Your task to perform on an android device: check the backup settings in the google photos Image 0: 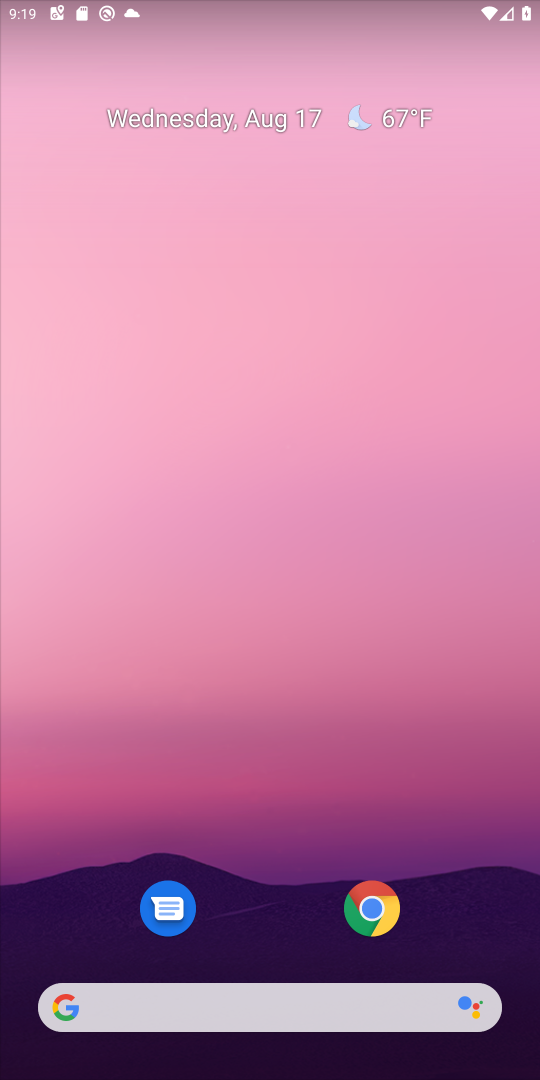
Step 0: drag from (255, 903) to (298, 52)
Your task to perform on an android device: check the backup settings in the google photos Image 1: 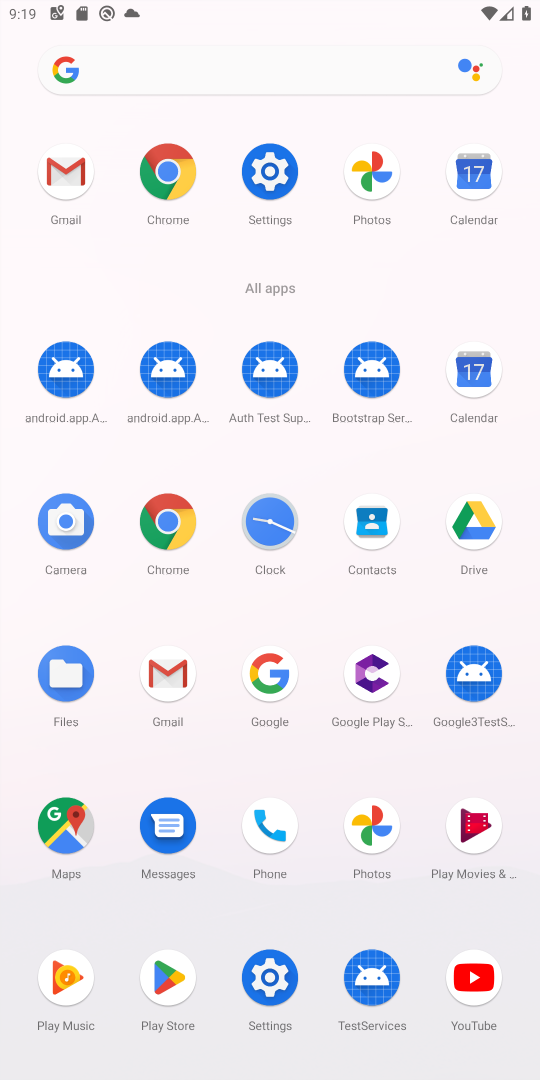
Step 1: click (366, 825)
Your task to perform on an android device: check the backup settings in the google photos Image 2: 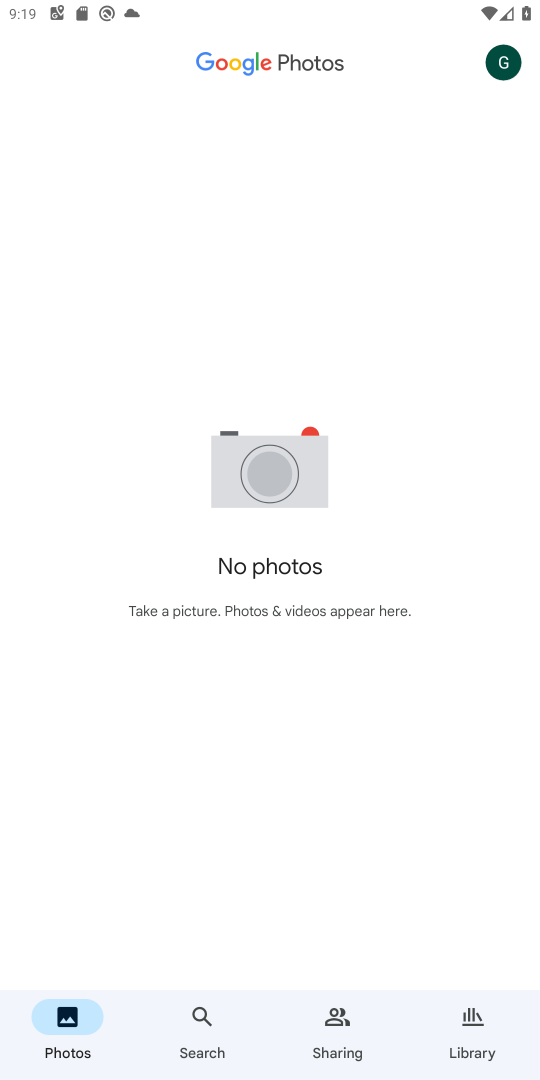
Step 2: click (502, 61)
Your task to perform on an android device: check the backup settings in the google photos Image 3: 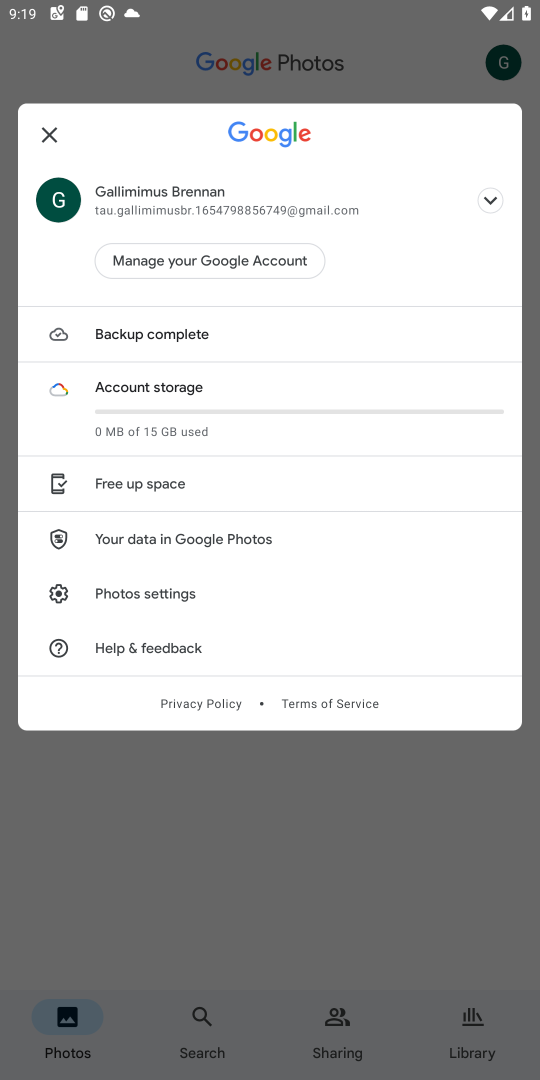
Step 3: click (162, 587)
Your task to perform on an android device: check the backup settings in the google photos Image 4: 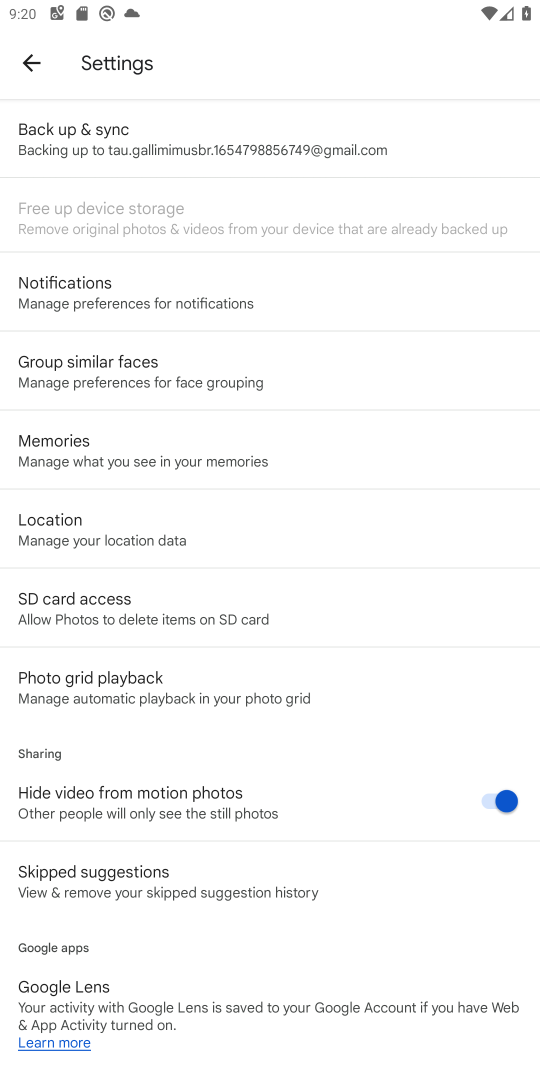
Step 4: click (123, 130)
Your task to perform on an android device: check the backup settings in the google photos Image 5: 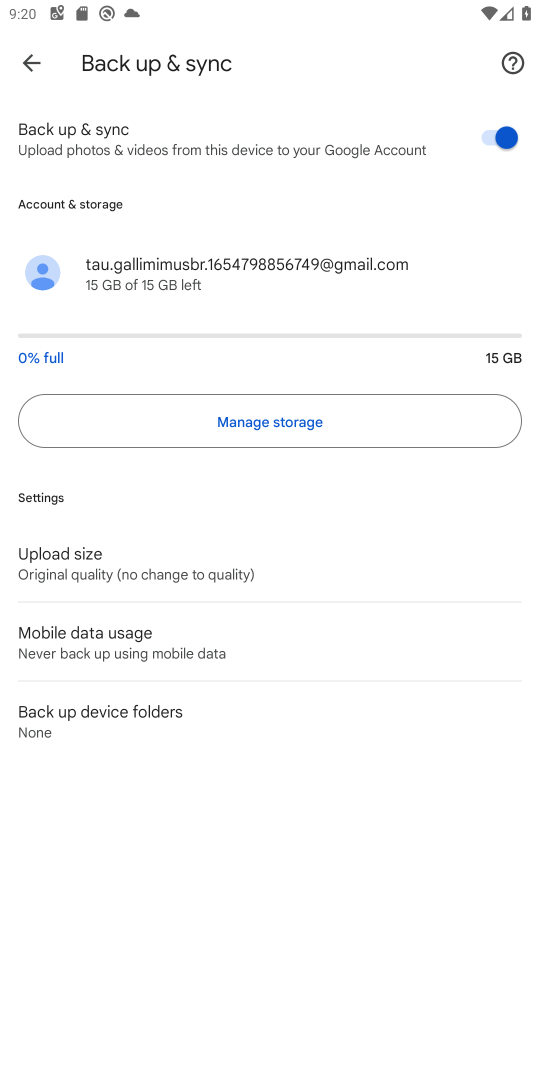
Step 5: task complete